Your task to perform on an android device: make emails show in primary in the gmail app Image 0: 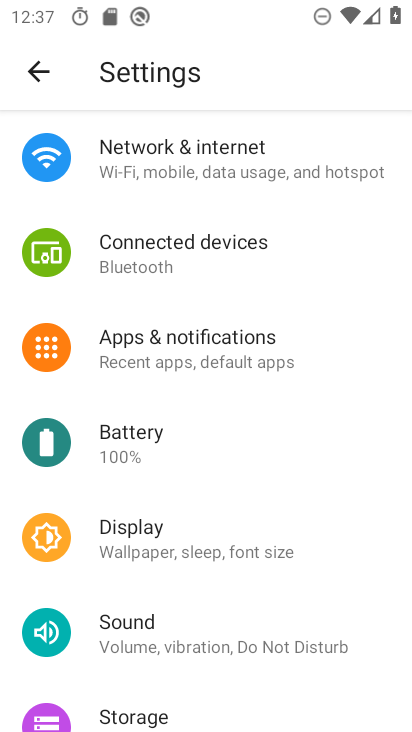
Step 0: press home button
Your task to perform on an android device: make emails show in primary in the gmail app Image 1: 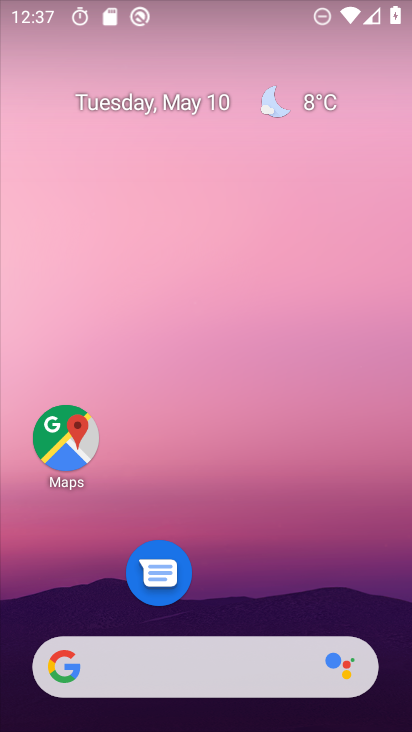
Step 1: drag from (240, 583) to (313, 17)
Your task to perform on an android device: make emails show in primary in the gmail app Image 2: 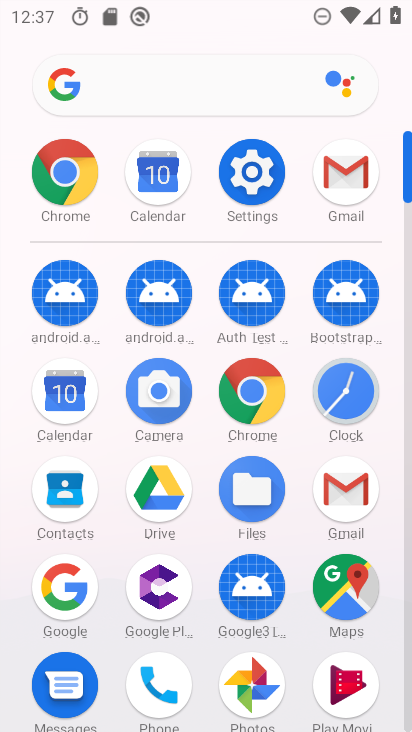
Step 2: click (353, 511)
Your task to perform on an android device: make emails show in primary in the gmail app Image 3: 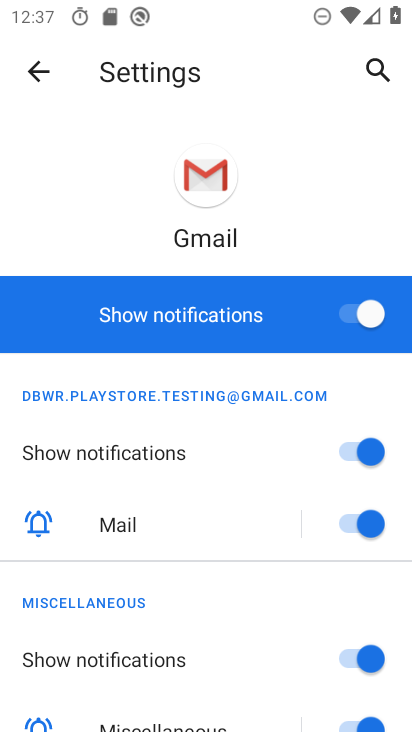
Step 3: click (31, 72)
Your task to perform on an android device: make emails show in primary in the gmail app Image 4: 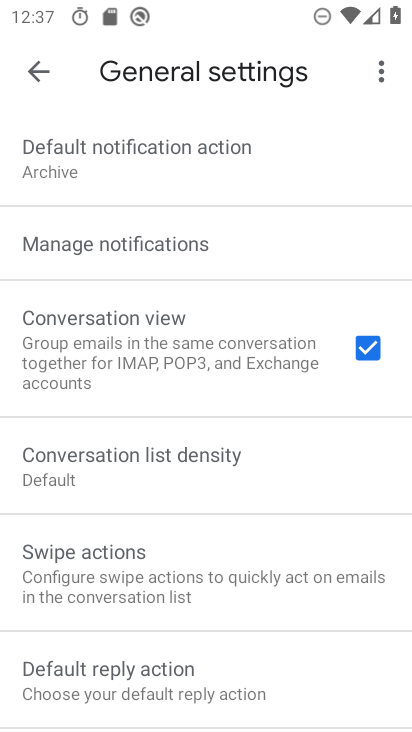
Step 4: click (34, 86)
Your task to perform on an android device: make emails show in primary in the gmail app Image 5: 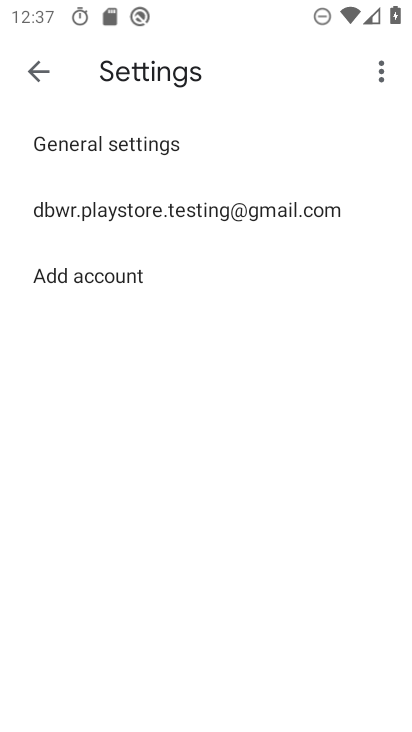
Step 5: click (36, 82)
Your task to perform on an android device: make emails show in primary in the gmail app Image 6: 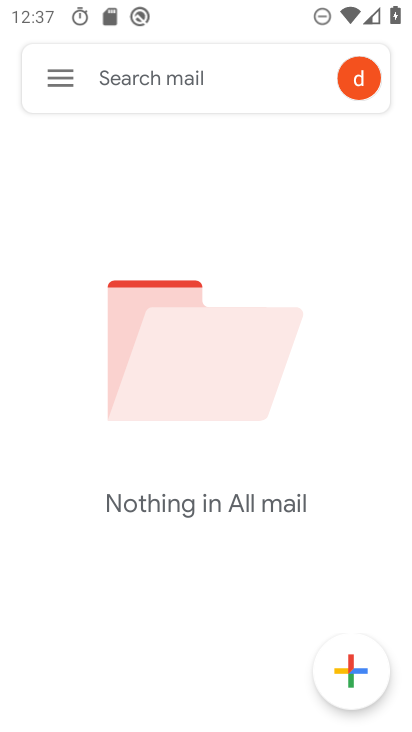
Step 6: click (68, 81)
Your task to perform on an android device: make emails show in primary in the gmail app Image 7: 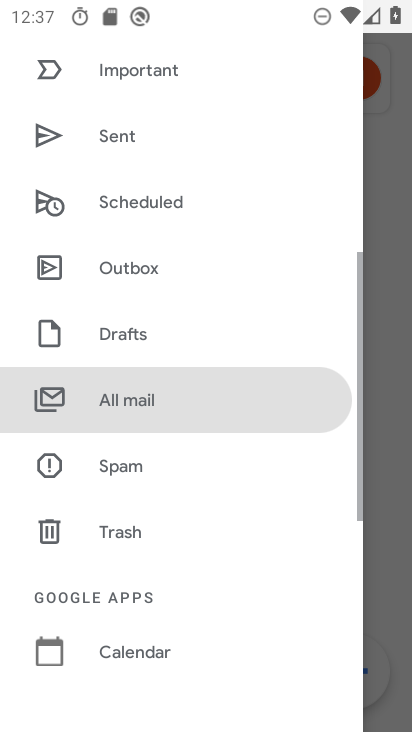
Step 7: drag from (162, 652) to (199, 3)
Your task to perform on an android device: make emails show in primary in the gmail app Image 8: 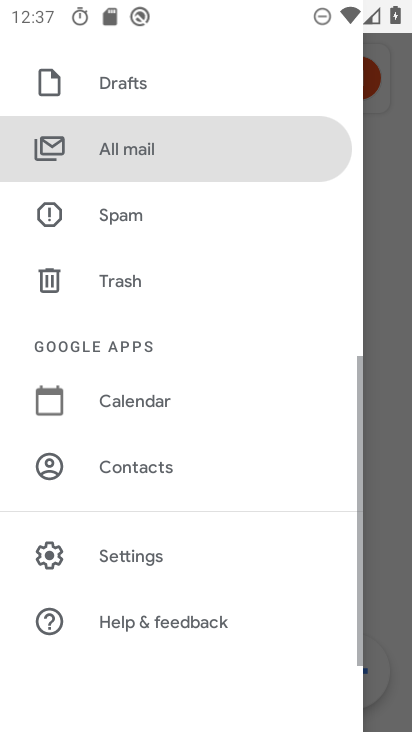
Step 8: click (119, 552)
Your task to perform on an android device: make emails show in primary in the gmail app Image 9: 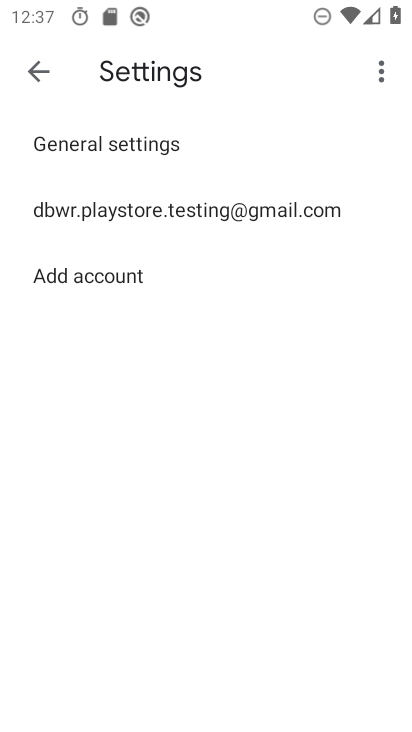
Step 9: click (244, 221)
Your task to perform on an android device: make emails show in primary in the gmail app Image 10: 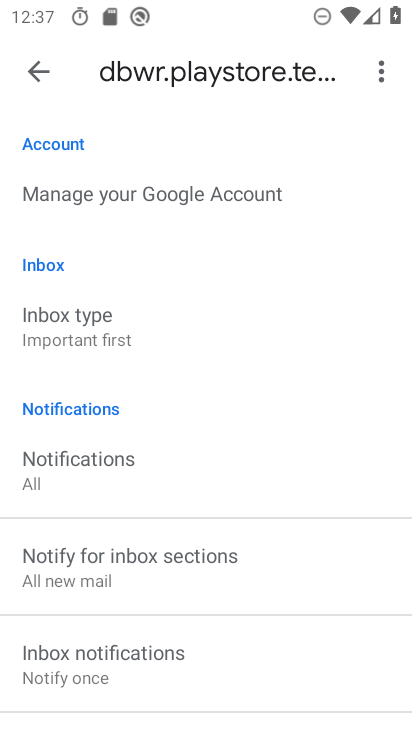
Step 10: click (129, 343)
Your task to perform on an android device: make emails show in primary in the gmail app Image 11: 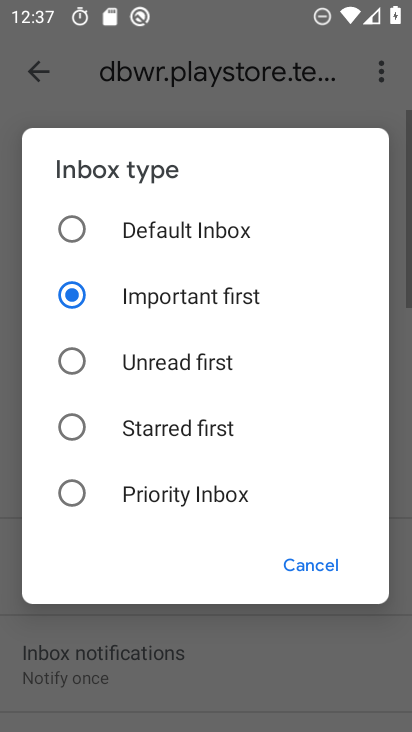
Step 11: click (157, 225)
Your task to perform on an android device: make emails show in primary in the gmail app Image 12: 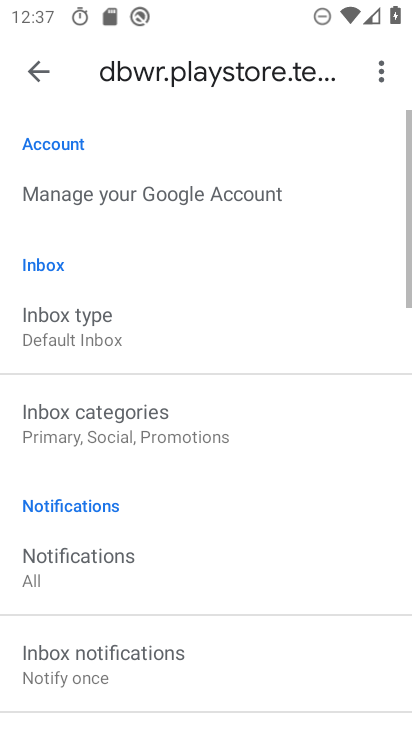
Step 12: click (119, 436)
Your task to perform on an android device: make emails show in primary in the gmail app Image 13: 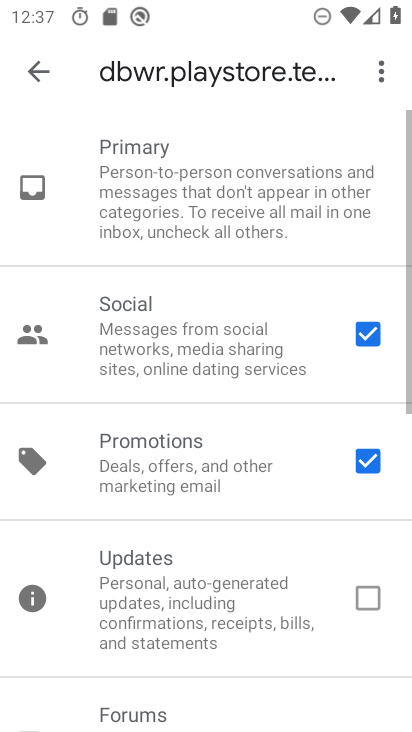
Step 13: click (361, 459)
Your task to perform on an android device: make emails show in primary in the gmail app Image 14: 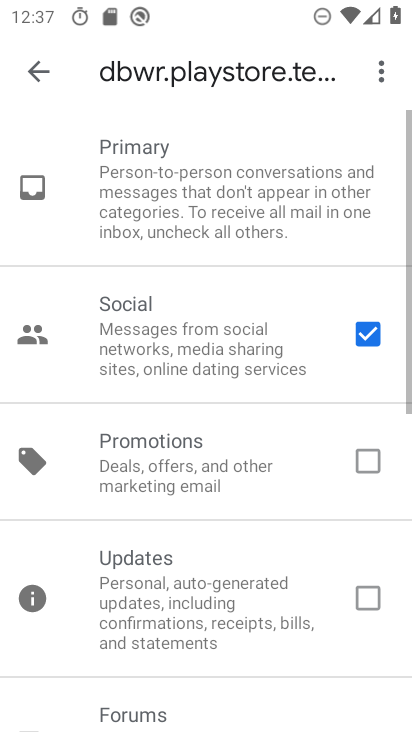
Step 14: click (361, 328)
Your task to perform on an android device: make emails show in primary in the gmail app Image 15: 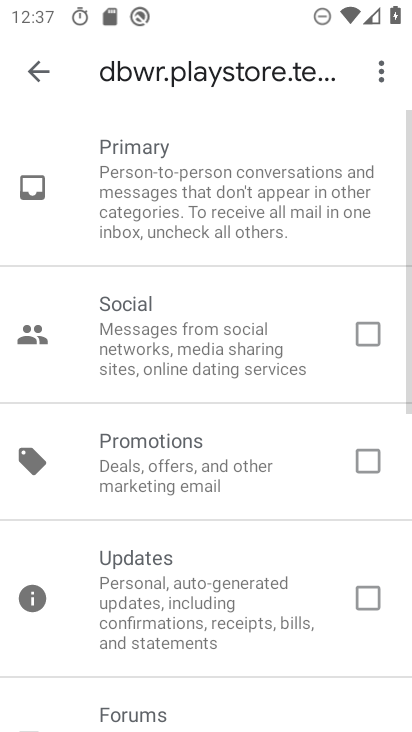
Step 15: task complete